Your task to perform on an android device: Go to network settings Image 0: 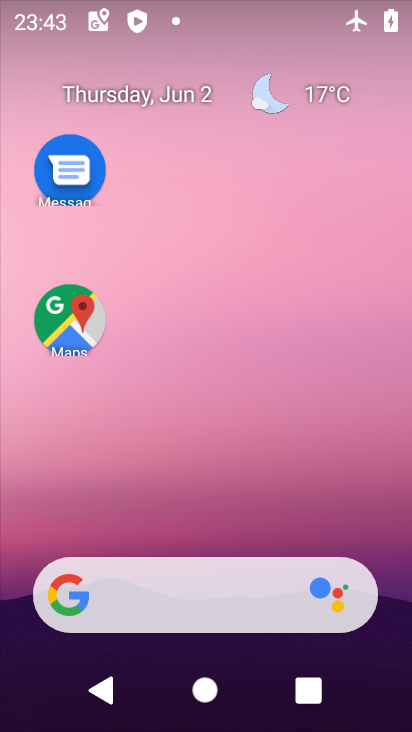
Step 0: press home button
Your task to perform on an android device: Go to network settings Image 1: 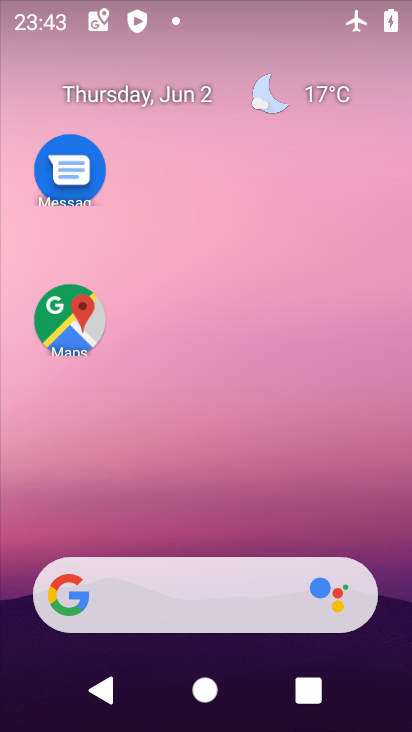
Step 1: drag from (346, 486) to (336, 1)
Your task to perform on an android device: Go to network settings Image 2: 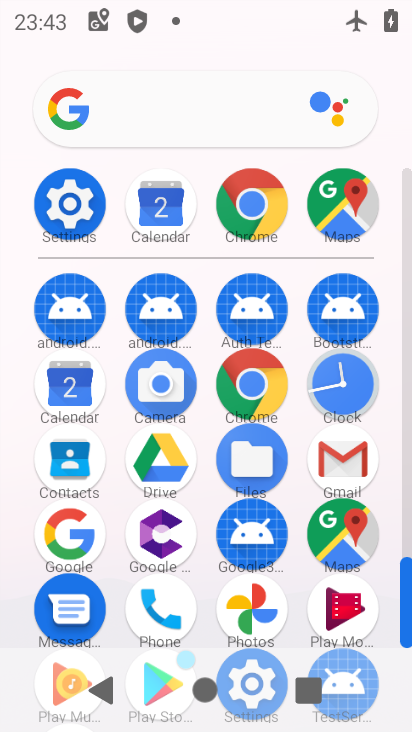
Step 2: click (64, 217)
Your task to perform on an android device: Go to network settings Image 3: 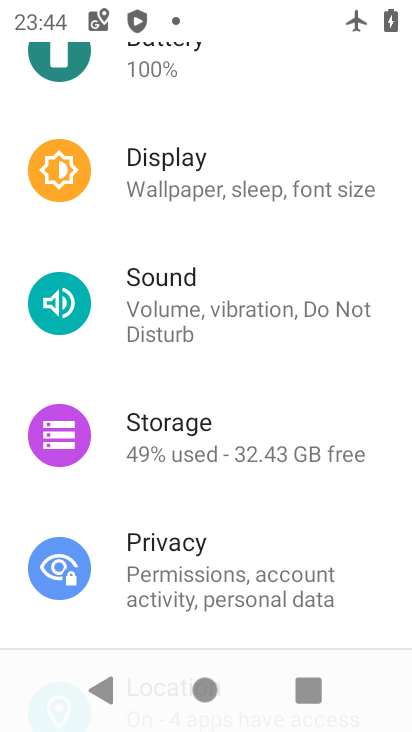
Step 3: drag from (256, 127) to (206, 379)
Your task to perform on an android device: Go to network settings Image 4: 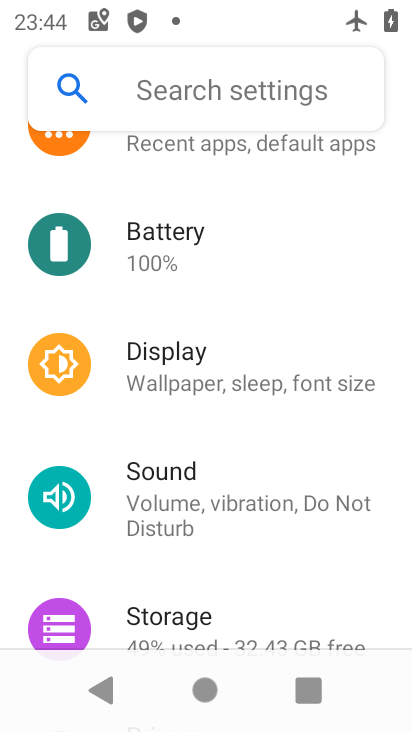
Step 4: drag from (214, 171) to (167, 488)
Your task to perform on an android device: Go to network settings Image 5: 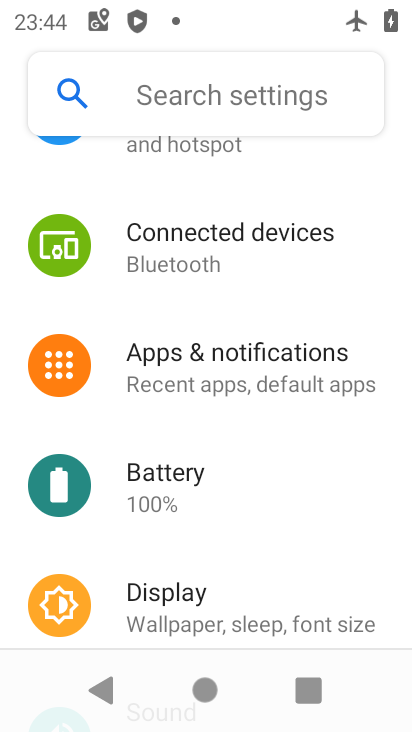
Step 5: drag from (180, 151) to (137, 600)
Your task to perform on an android device: Go to network settings Image 6: 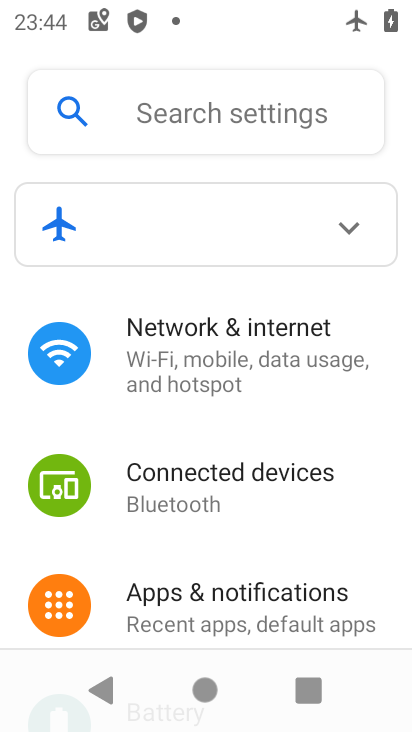
Step 6: click (191, 336)
Your task to perform on an android device: Go to network settings Image 7: 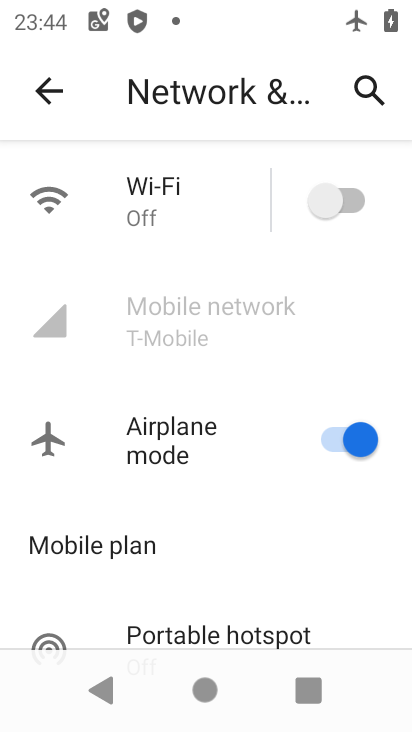
Step 7: task complete